Your task to perform on an android device: turn off airplane mode Image 0: 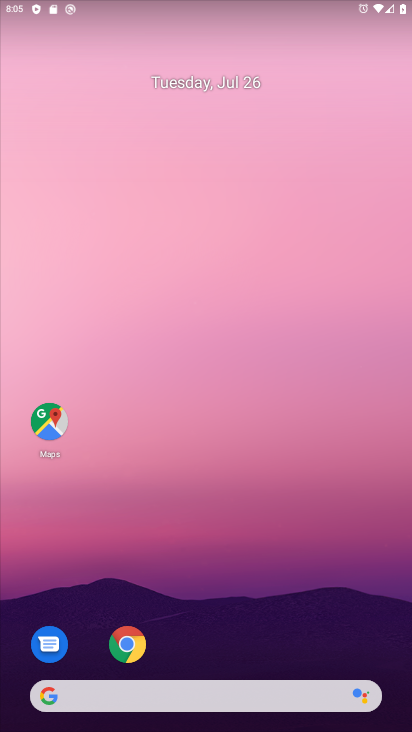
Step 0: drag from (267, 669) to (242, 170)
Your task to perform on an android device: turn off airplane mode Image 1: 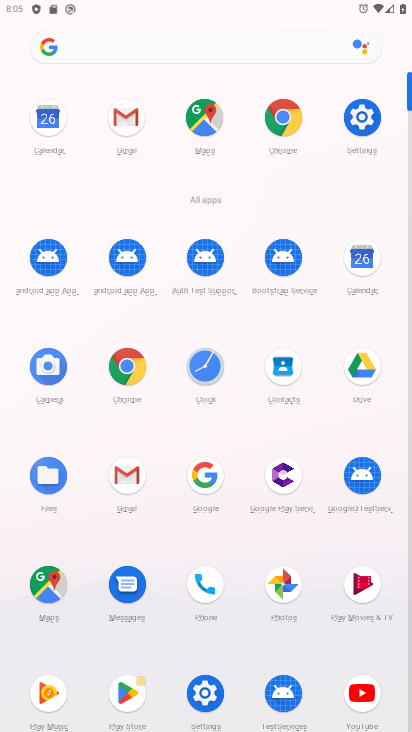
Step 1: click (362, 116)
Your task to perform on an android device: turn off airplane mode Image 2: 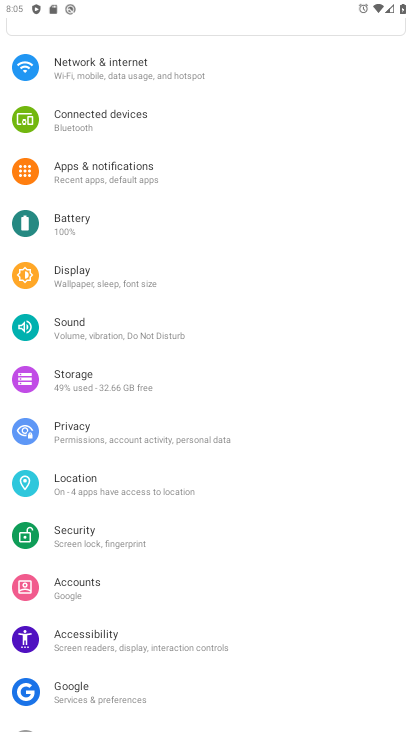
Step 2: click (131, 66)
Your task to perform on an android device: turn off airplane mode Image 3: 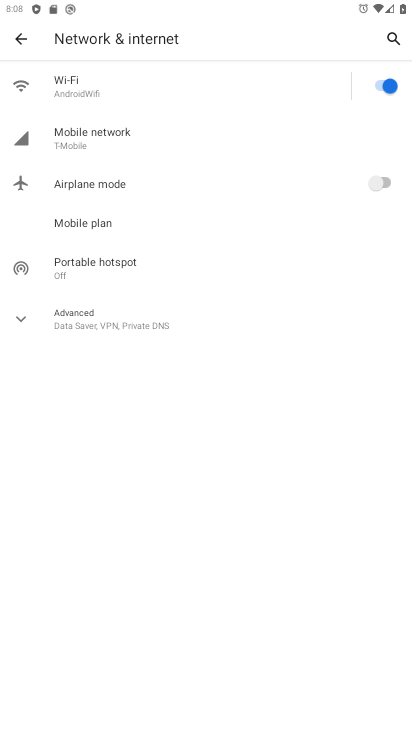
Step 3: task complete